Your task to perform on an android device: turn on location history Image 0: 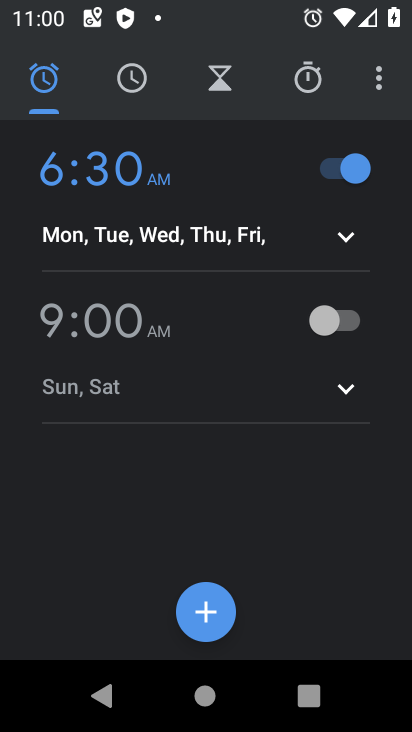
Step 0: press home button
Your task to perform on an android device: turn on location history Image 1: 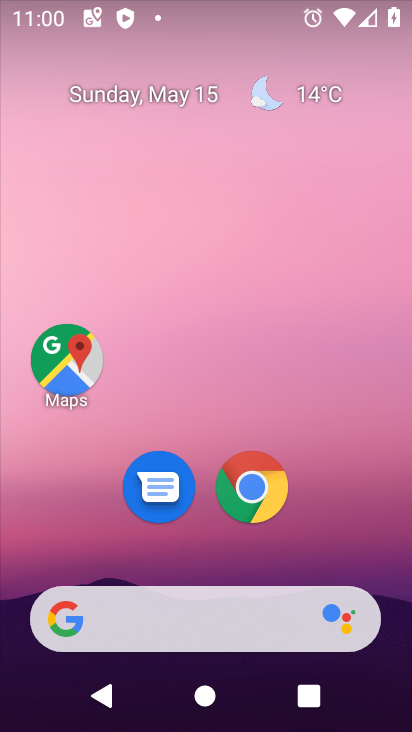
Step 1: click (64, 358)
Your task to perform on an android device: turn on location history Image 2: 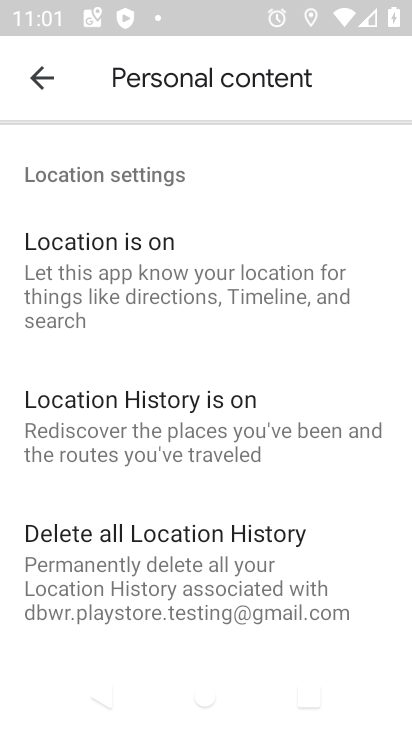
Step 2: task complete